Your task to perform on an android device: Go to internet settings Image 0: 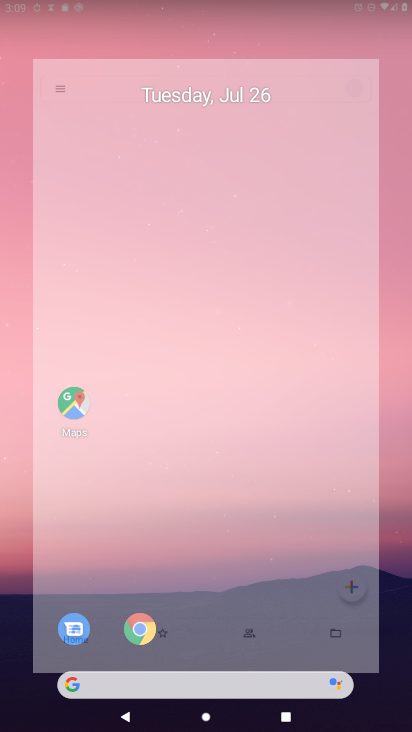
Step 0: drag from (231, 699) to (283, 95)
Your task to perform on an android device: Go to internet settings Image 1: 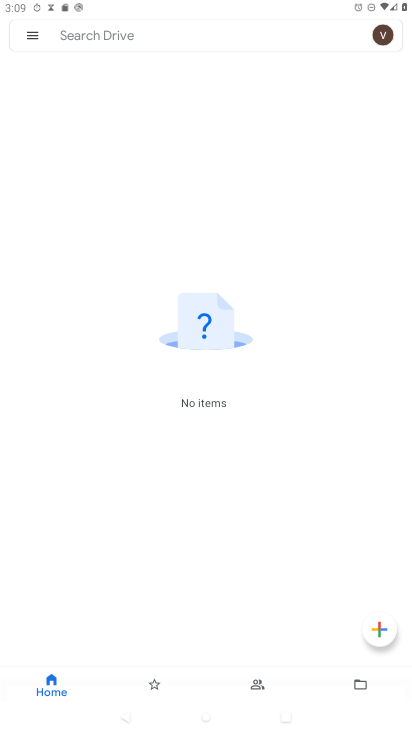
Step 1: press home button
Your task to perform on an android device: Go to internet settings Image 2: 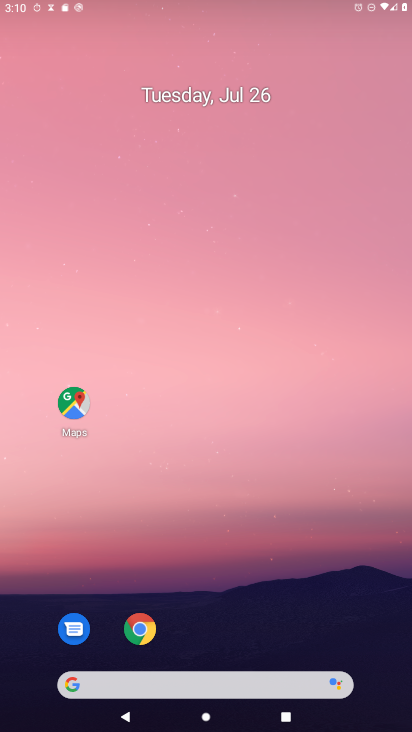
Step 2: drag from (281, 692) to (333, 6)
Your task to perform on an android device: Go to internet settings Image 3: 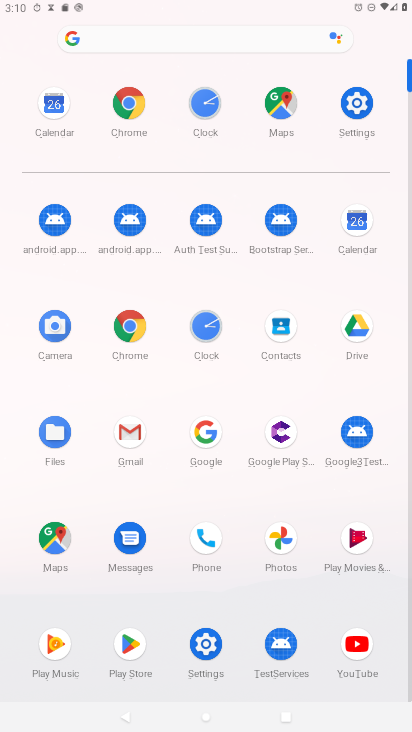
Step 3: click (351, 101)
Your task to perform on an android device: Go to internet settings Image 4: 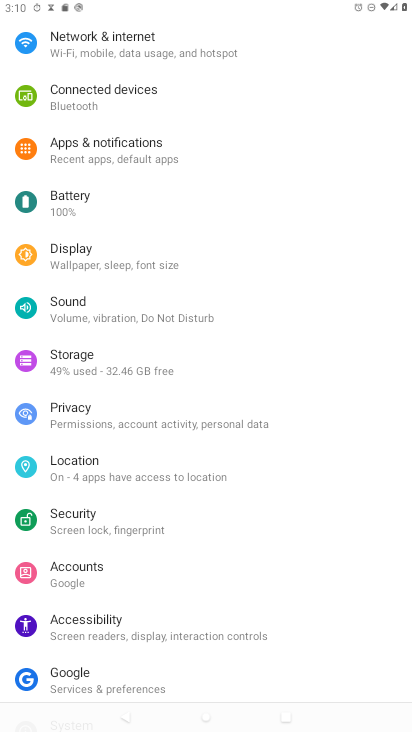
Step 4: click (154, 57)
Your task to perform on an android device: Go to internet settings Image 5: 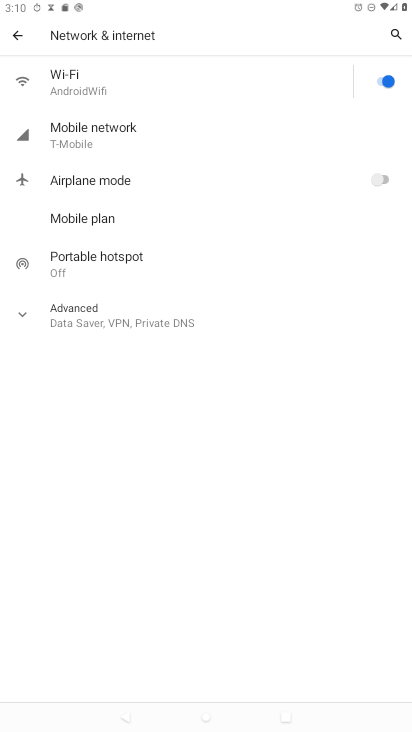
Step 5: task complete